Your task to perform on an android device: see sites visited before in the chrome app Image 0: 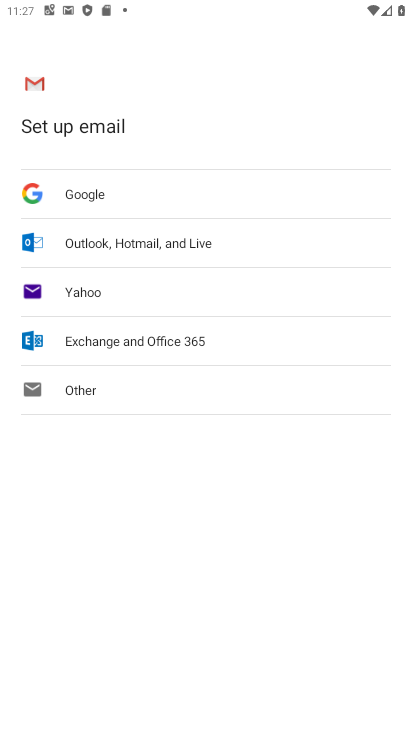
Step 0: press home button
Your task to perform on an android device: see sites visited before in the chrome app Image 1: 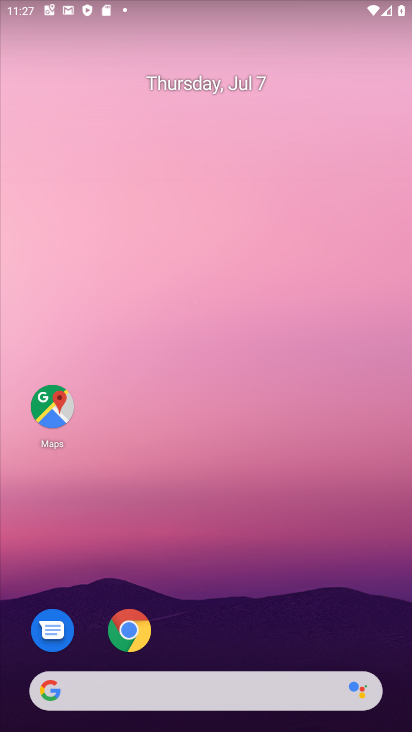
Step 1: click (143, 633)
Your task to perform on an android device: see sites visited before in the chrome app Image 2: 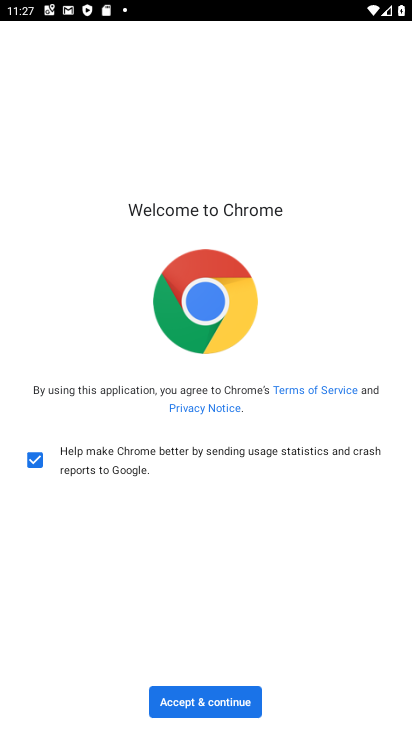
Step 2: click (229, 694)
Your task to perform on an android device: see sites visited before in the chrome app Image 3: 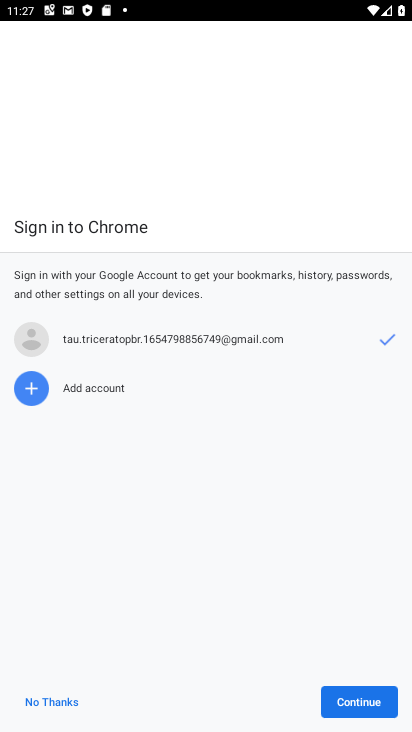
Step 3: click (344, 698)
Your task to perform on an android device: see sites visited before in the chrome app Image 4: 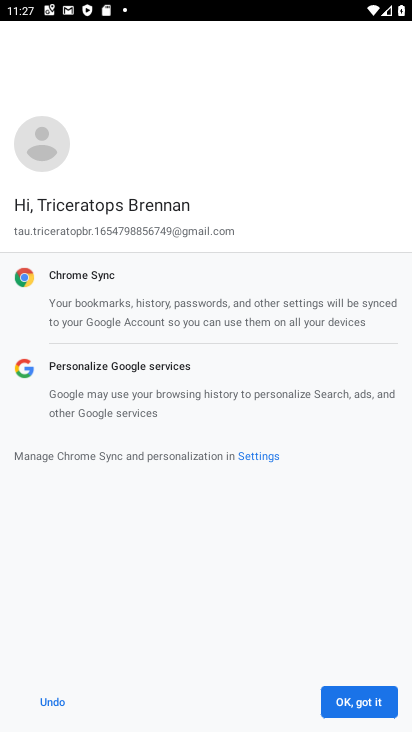
Step 4: click (363, 699)
Your task to perform on an android device: see sites visited before in the chrome app Image 5: 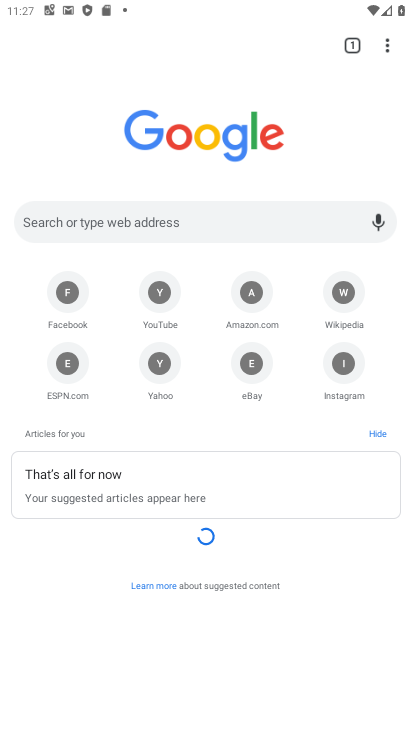
Step 5: click (388, 47)
Your task to perform on an android device: see sites visited before in the chrome app Image 6: 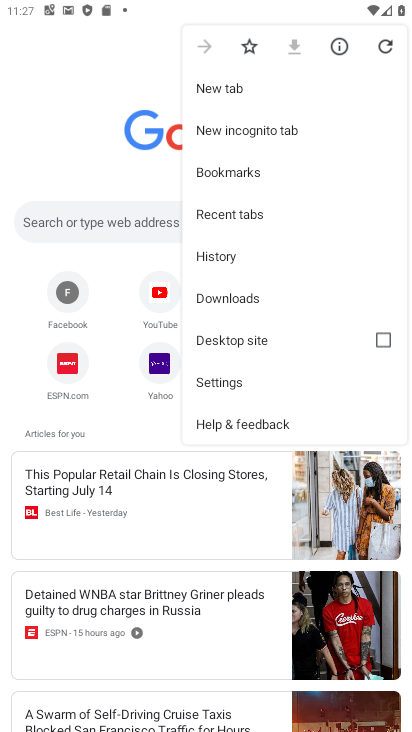
Step 6: click (260, 209)
Your task to perform on an android device: see sites visited before in the chrome app Image 7: 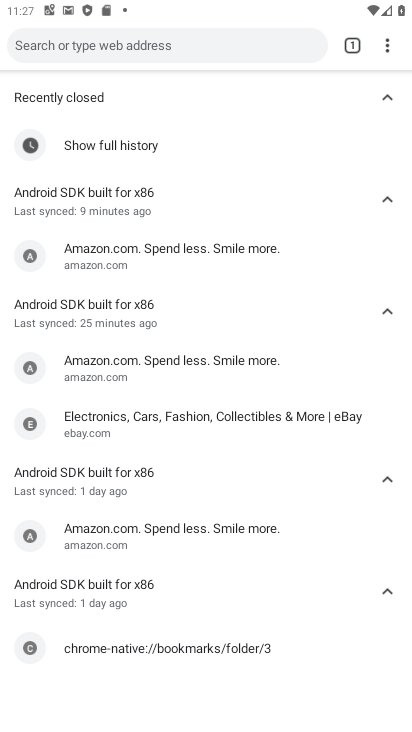
Step 7: task complete